Your task to perform on an android device: What's the weather going to be this weekend? Image 0: 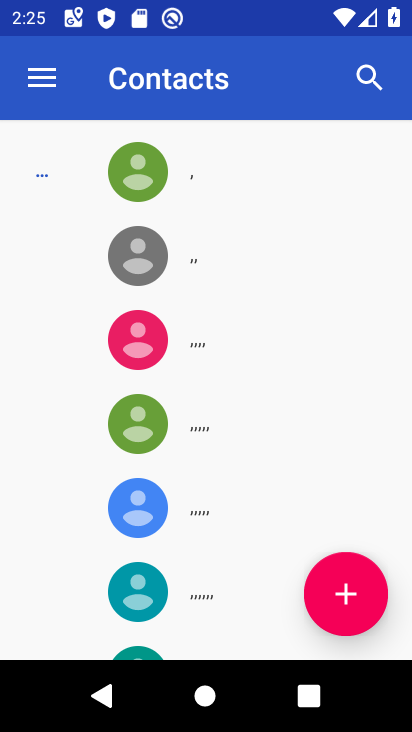
Step 0: press home button
Your task to perform on an android device: What's the weather going to be this weekend? Image 1: 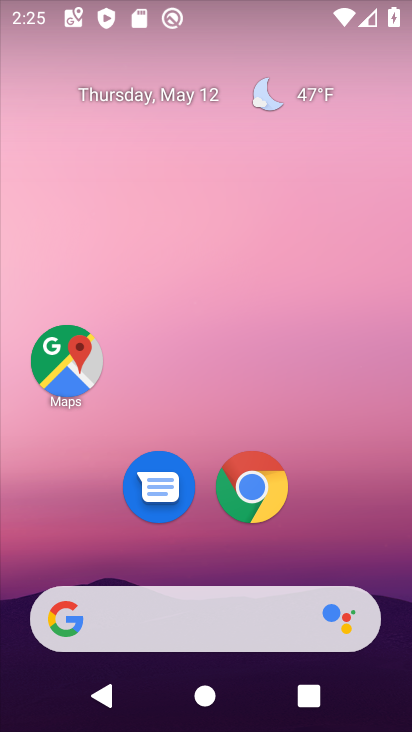
Step 1: click (316, 90)
Your task to perform on an android device: What's the weather going to be this weekend? Image 2: 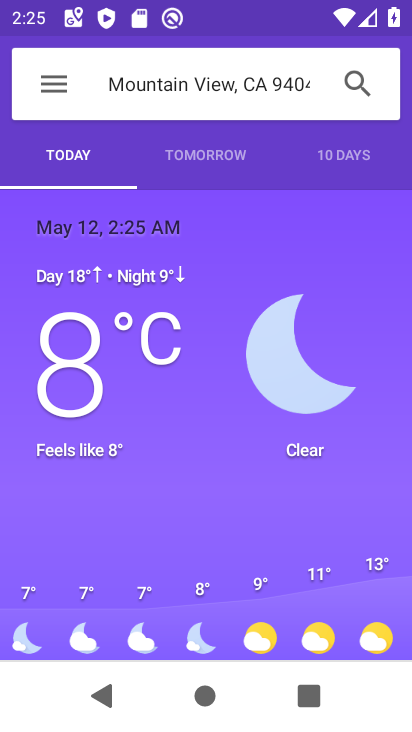
Step 2: click (342, 154)
Your task to perform on an android device: What's the weather going to be this weekend? Image 3: 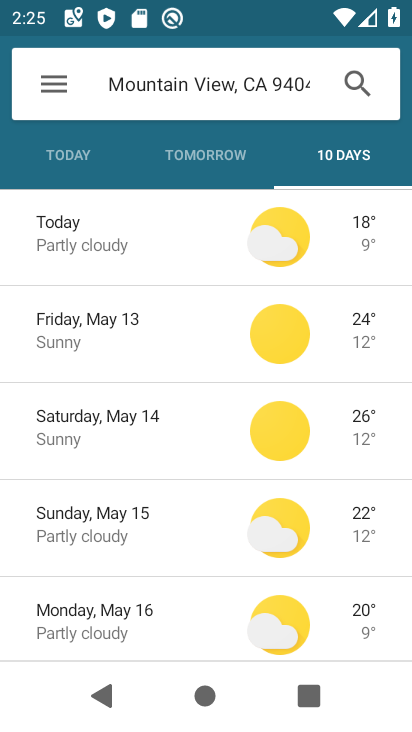
Step 3: task complete